Your task to perform on an android device: Go to Yahoo.com Image 0: 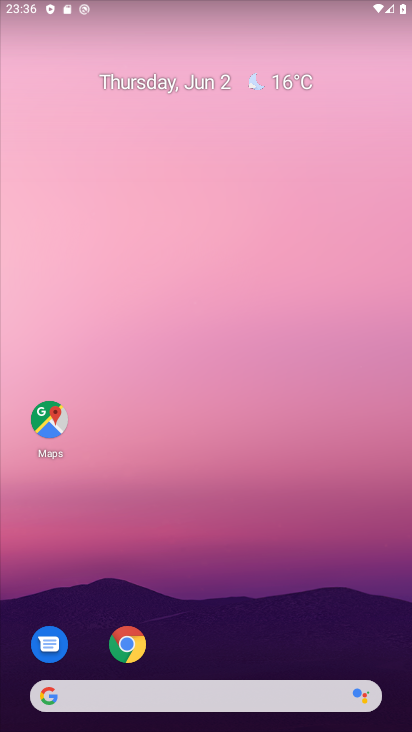
Step 0: click (124, 644)
Your task to perform on an android device: Go to Yahoo.com Image 1: 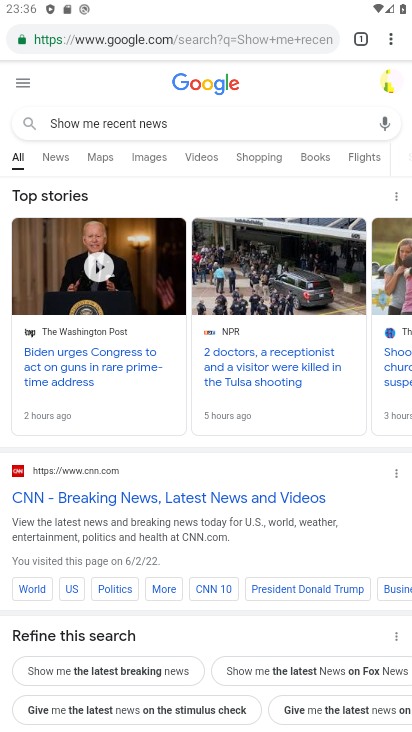
Step 1: click (119, 44)
Your task to perform on an android device: Go to Yahoo.com Image 2: 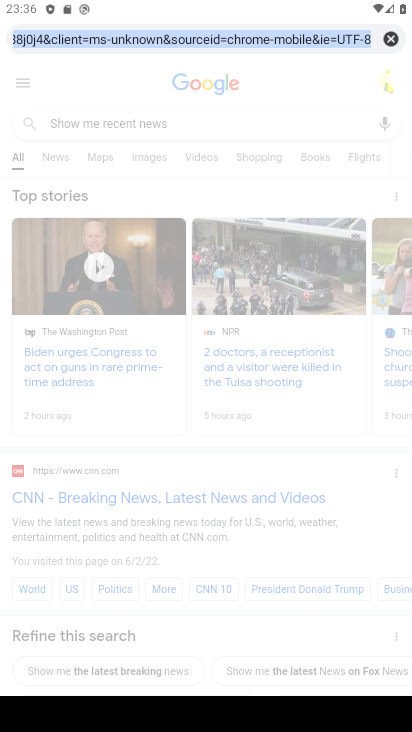
Step 2: type "Yahoo.com"
Your task to perform on an android device: Go to Yahoo.com Image 3: 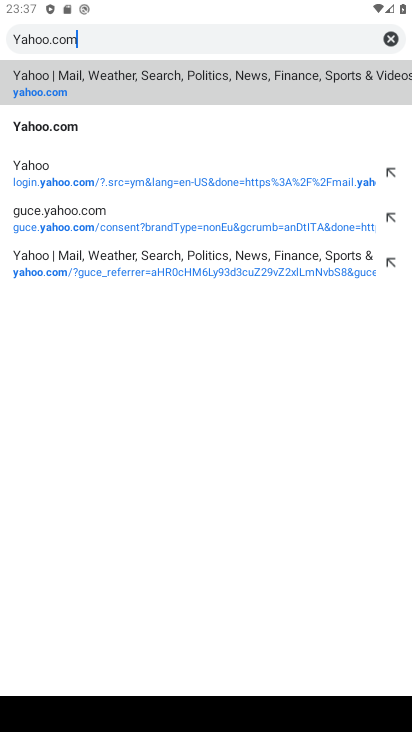
Step 3: click (90, 140)
Your task to perform on an android device: Go to Yahoo.com Image 4: 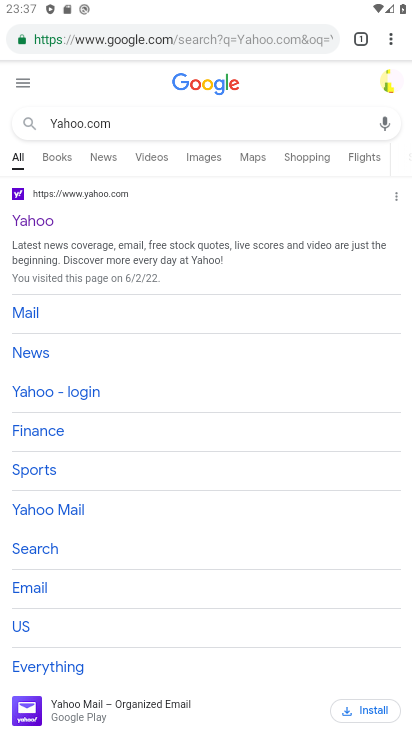
Step 4: task complete